Your task to perform on an android device: Open the calendar app, open the side menu, and click the "Day" option Image 0: 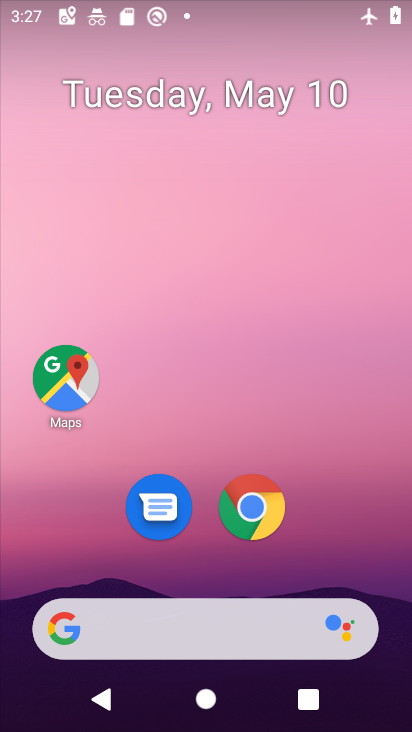
Step 0: drag from (209, 586) to (201, 294)
Your task to perform on an android device: Open the calendar app, open the side menu, and click the "Day" option Image 1: 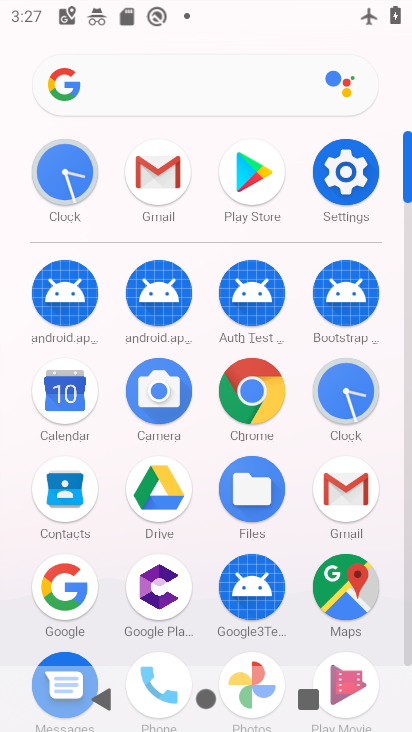
Step 1: click (68, 395)
Your task to perform on an android device: Open the calendar app, open the side menu, and click the "Day" option Image 2: 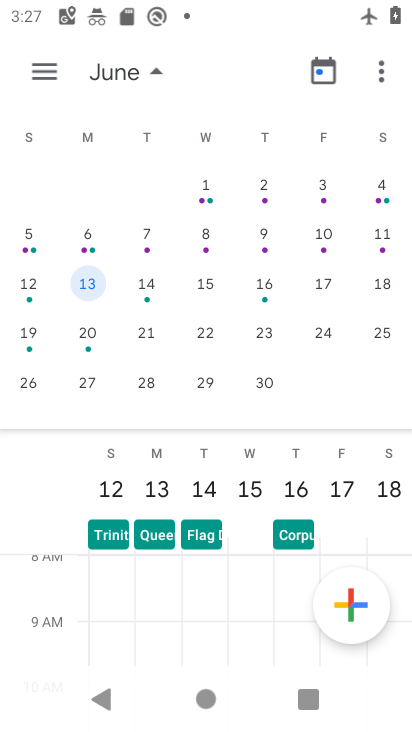
Step 2: click (51, 70)
Your task to perform on an android device: Open the calendar app, open the side menu, and click the "Day" option Image 3: 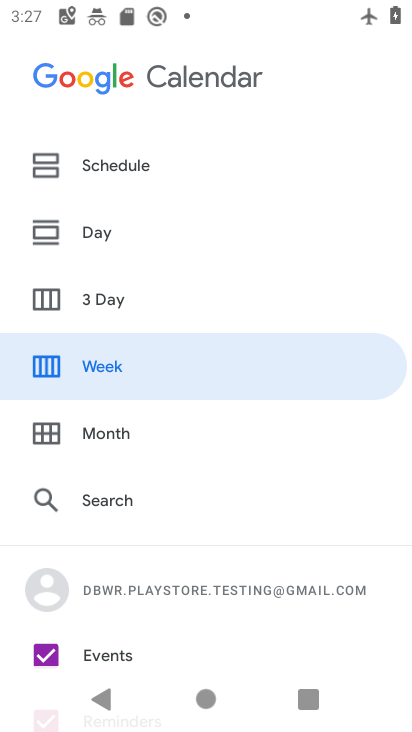
Step 3: click (126, 243)
Your task to perform on an android device: Open the calendar app, open the side menu, and click the "Day" option Image 4: 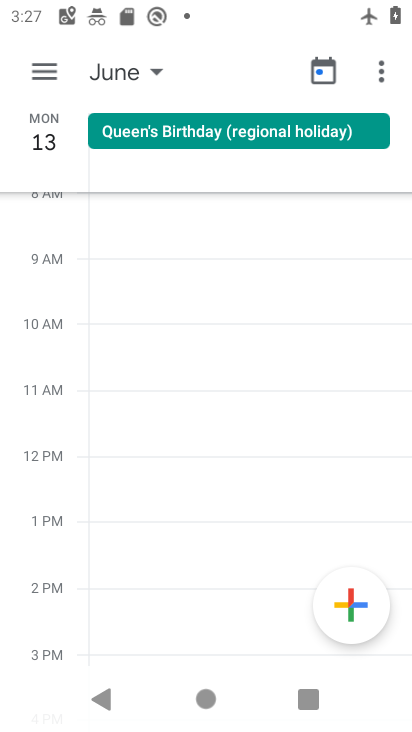
Step 4: task complete